Your task to perform on an android device: check out phone information Image 0: 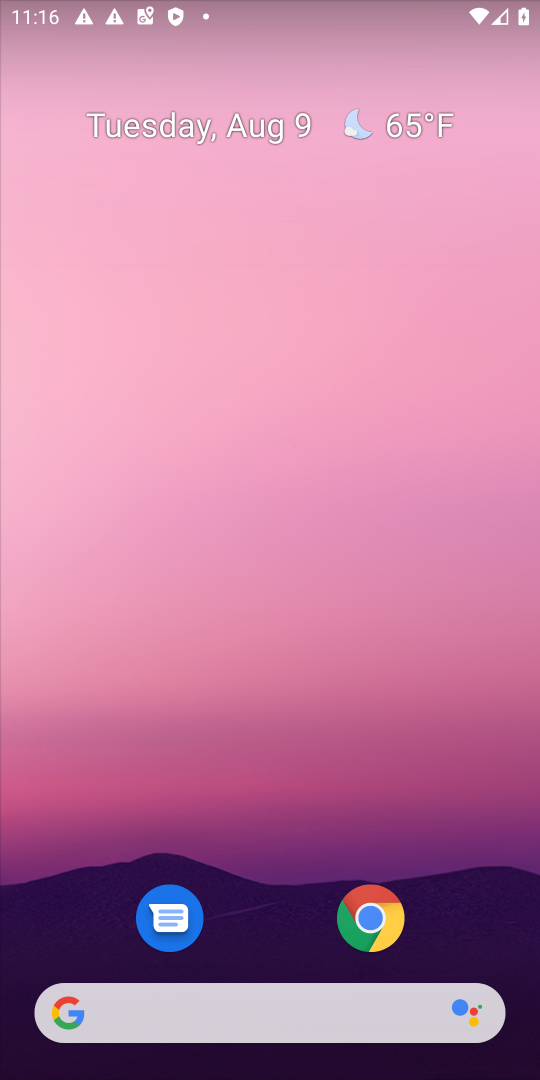
Step 0: drag from (257, 895) to (254, 213)
Your task to perform on an android device: check out phone information Image 1: 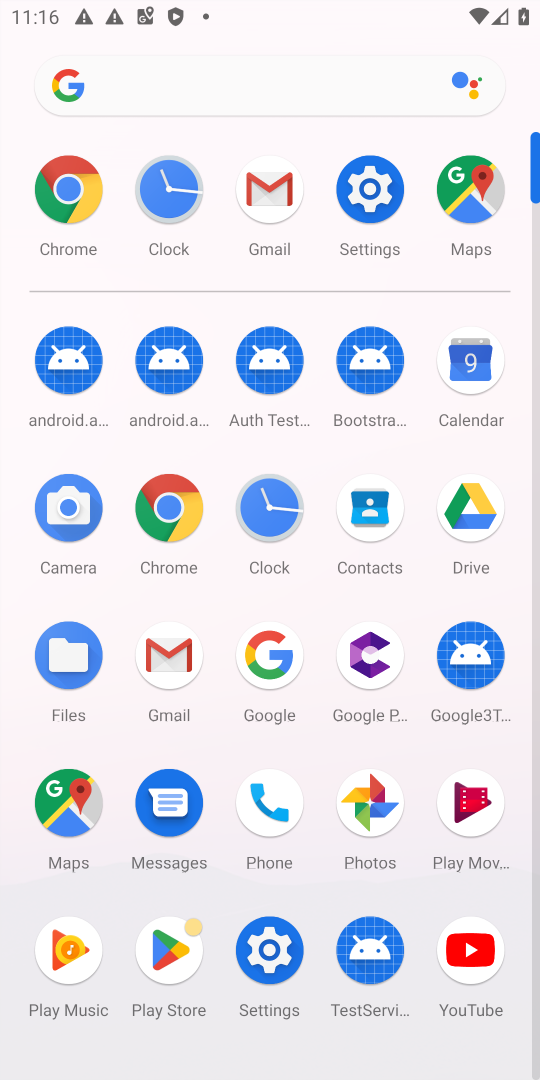
Step 1: click (257, 810)
Your task to perform on an android device: check out phone information Image 2: 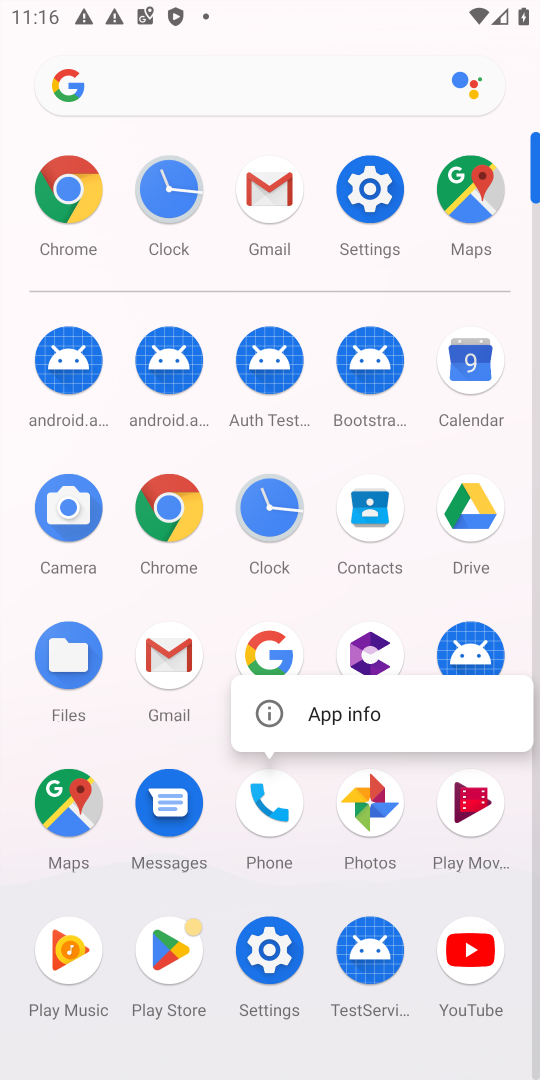
Step 2: click (280, 716)
Your task to perform on an android device: check out phone information Image 3: 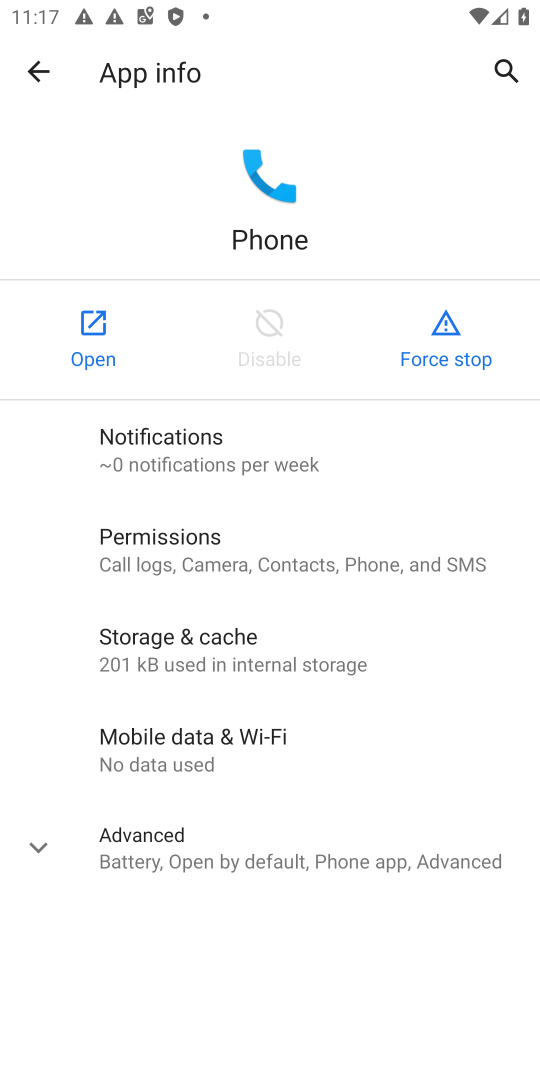
Step 3: click (188, 848)
Your task to perform on an android device: check out phone information Image 4: 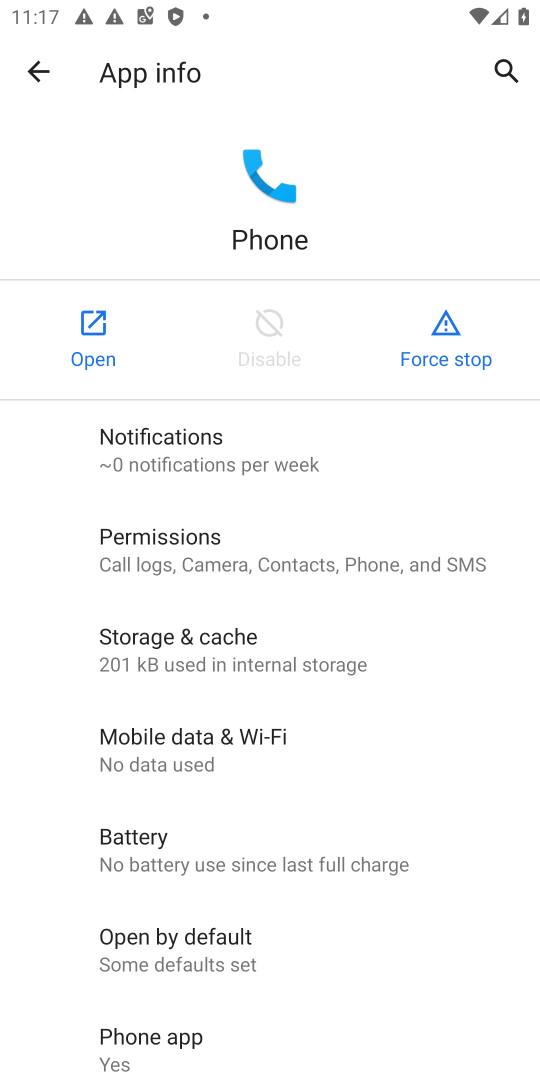
Step 4: task complete